Your task to perform on an android device: change the clock display to digital Image 0: 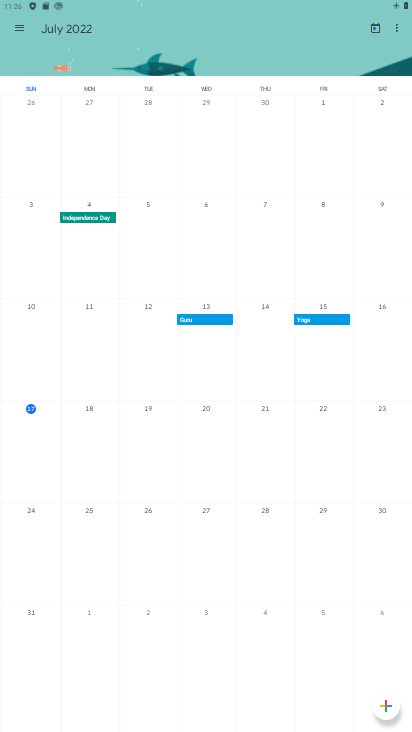
Step 0: press home button
Your task to perform on an android device: change the clock display to digital Image 1: 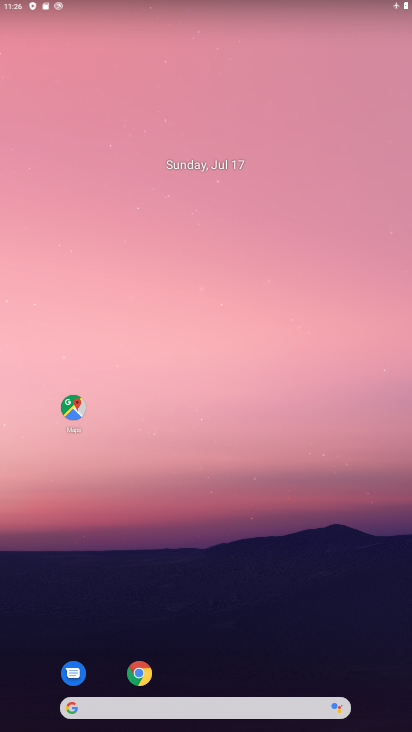
Step 1: drag from (219, 586) to (151, 113)
Your task to perform on an android device: change the clock display to digital Image 2: 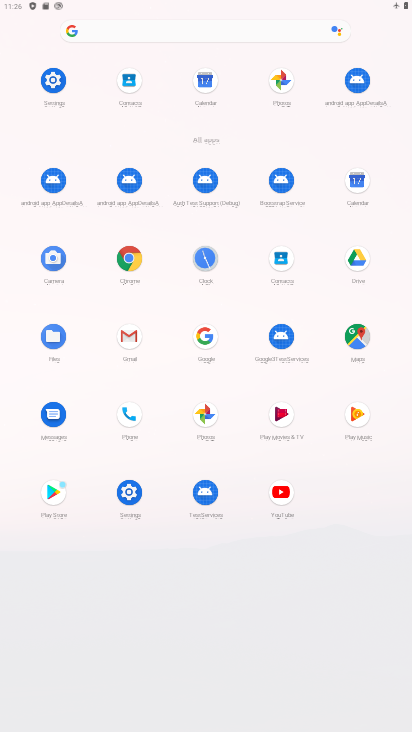
Step 2: click (54, 82)
Your task to perform on an android device: change the clock display to digital Image 3: 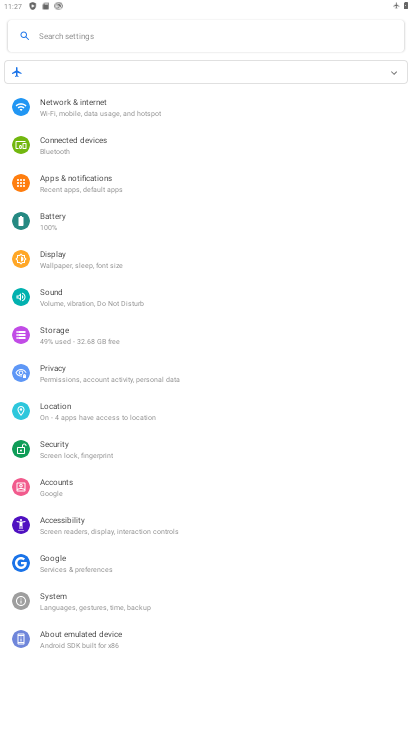
Step 3: press back button
Your task to perform on an android device: change the clock display to digital Image 4: 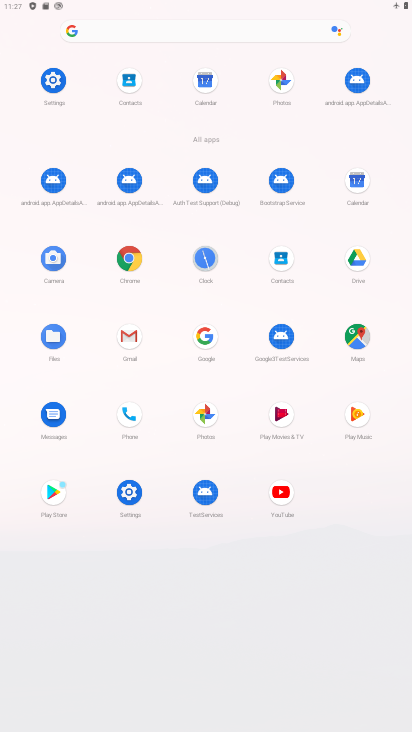
Step 4: click (205, 255)
Your task to perform on an android device: change the clock display to digital Image 5: 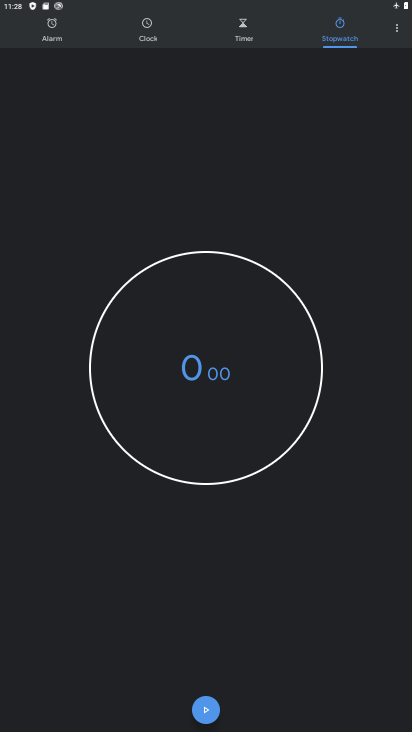
Step 5: click (392, 27)
Your task to perform on an android device: change the clock display to digital Image 6: 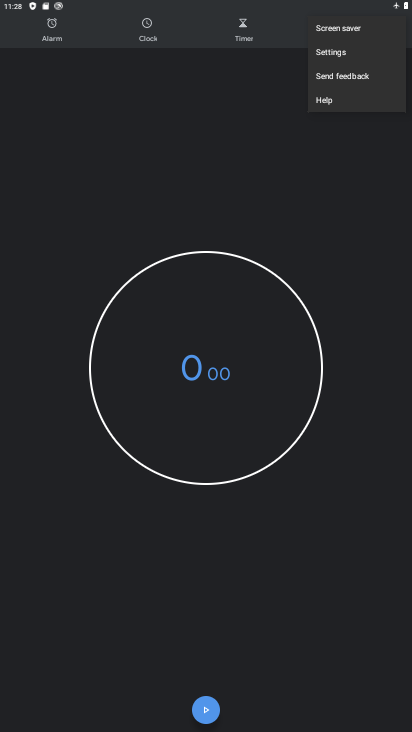
Step 6: click (337, 59)
Your task to perform on an android device: change the clock display to digital Image 7: 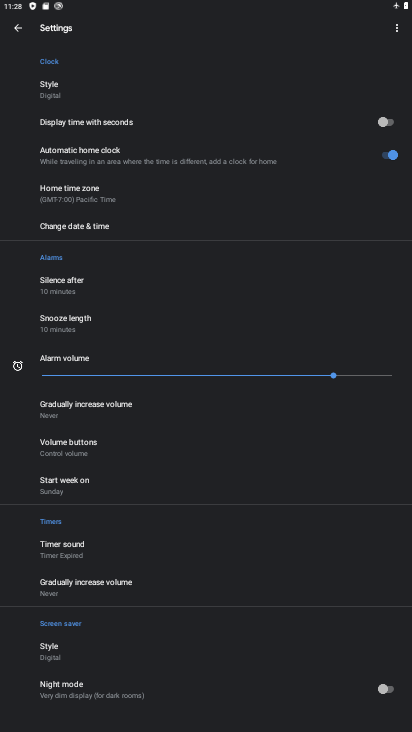
Step 7: click (45, 87)
Your task to perform on an android device: change the clock display to digital Image 8: 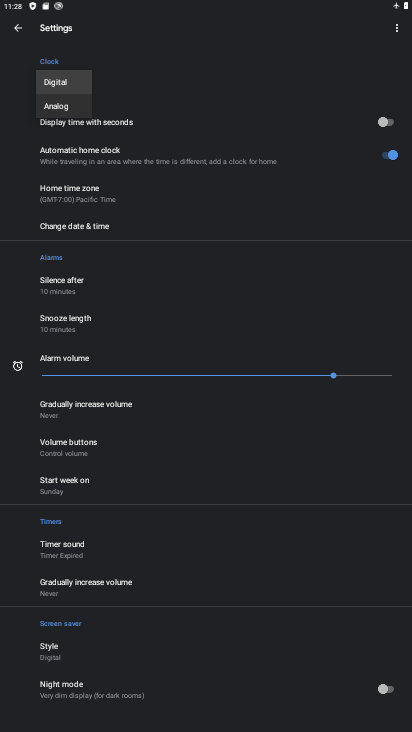
Step 8: click (71, 84)
Your task to perform on an android device: change the clock display to digital Image 9: 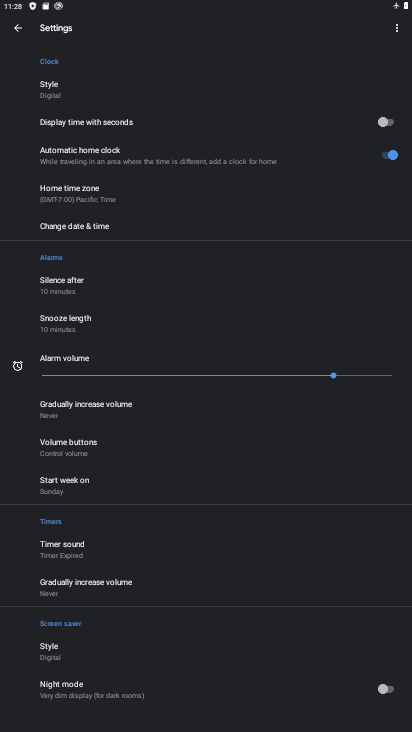
Step 9: task complete